Your task to perform on an android device: toggle sleep mode Image 0: 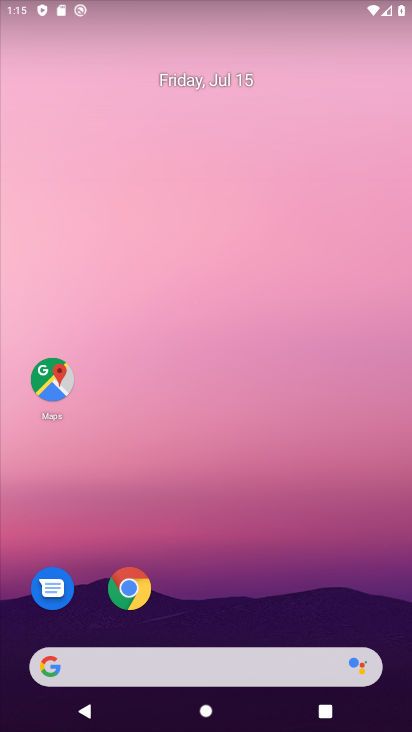
Step 0: click (288, 46)
Your task to perform on an android device: toggle sleep mode Image 1: 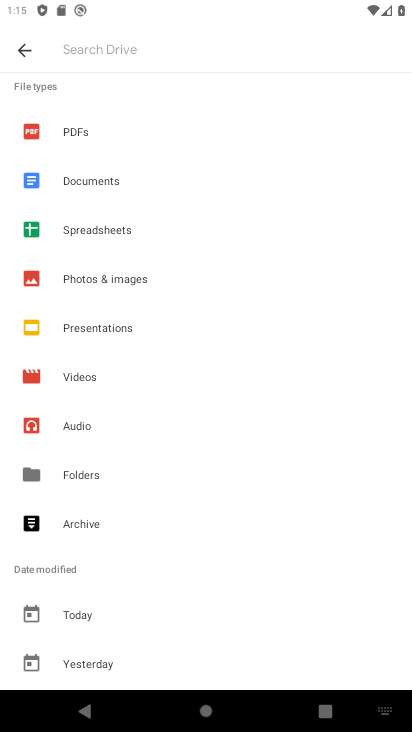
Step 1: press home button
Your task to perform on an android device: toggle sleep mode Image 2: 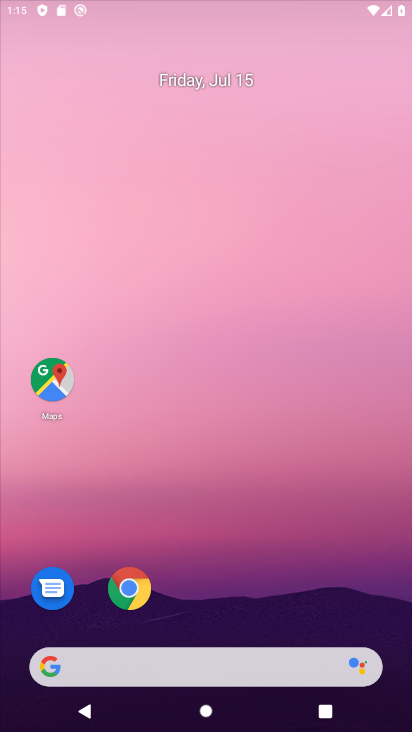
Step 2: drag from (294, 544) to (260, 24)
Your task to perform on an android device: toggle sleep mode Image 3: 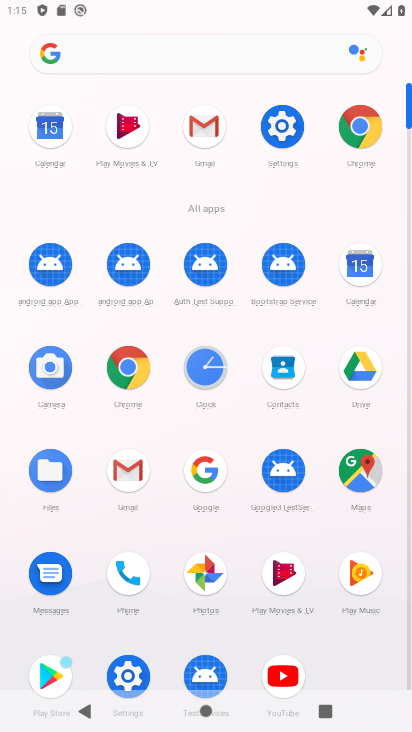
Step 3: click (283, 147)
Your task to perform on an android device: toggle sleep mode Image 4: 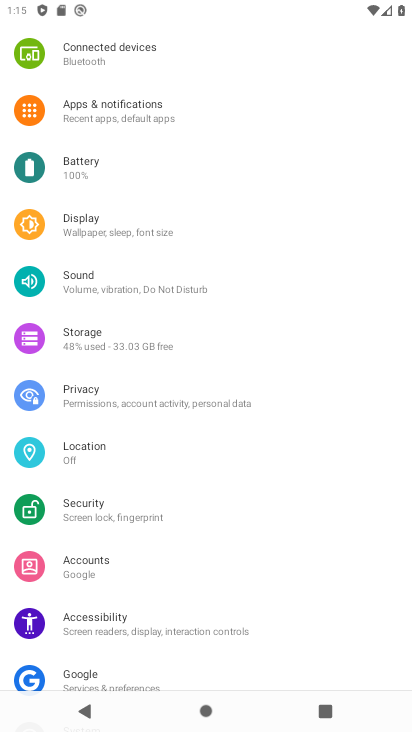
Step 4: click (123, 227)
Your task to perform on an android device: toggle sleep mode Image 5: 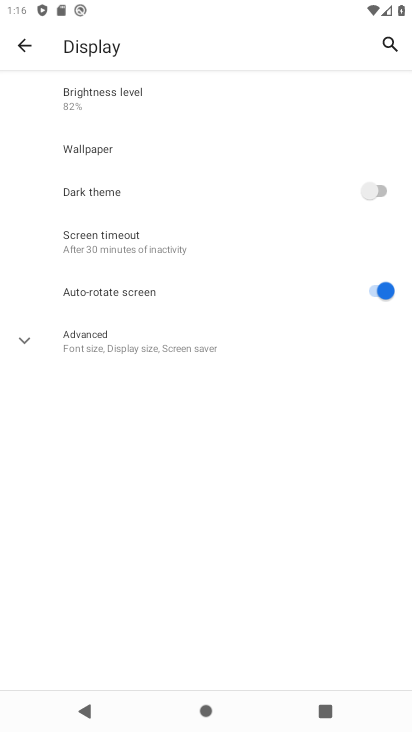
Step 5: click (163, 329)
Your task to perform on an android device: toggle sleep mode Image 6: 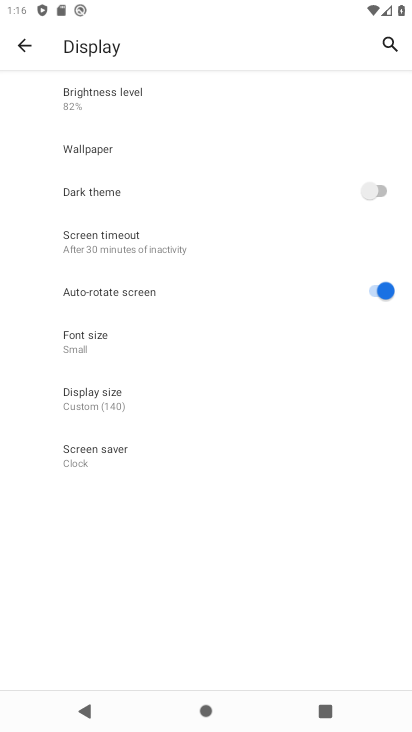
Step 6: task complete